Your task to perform on an android device: Open settings on Google Maps Image 0: 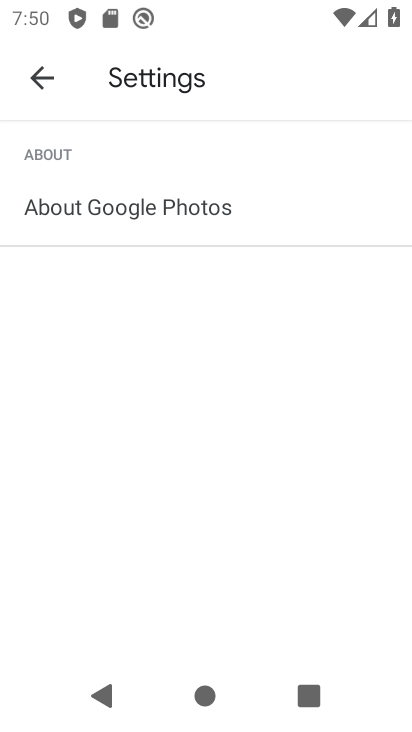
Step 0: press home button
Your task to perform on an android device: Open settings on Google Maps Image 1: 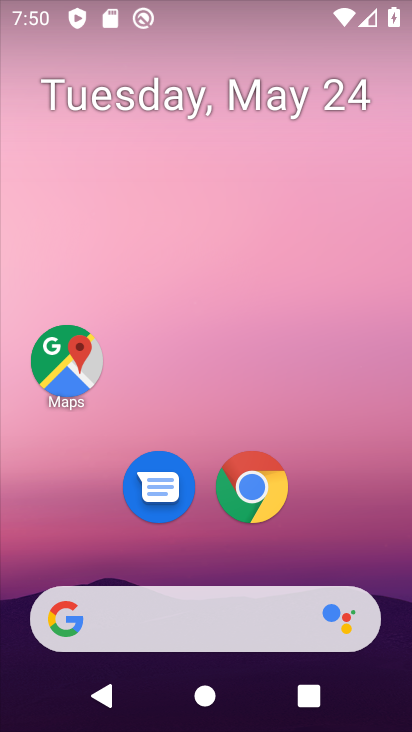
Step 1: click (49, 361)
Your task to perform on an android device: Open settings on Google Maps Image 2: 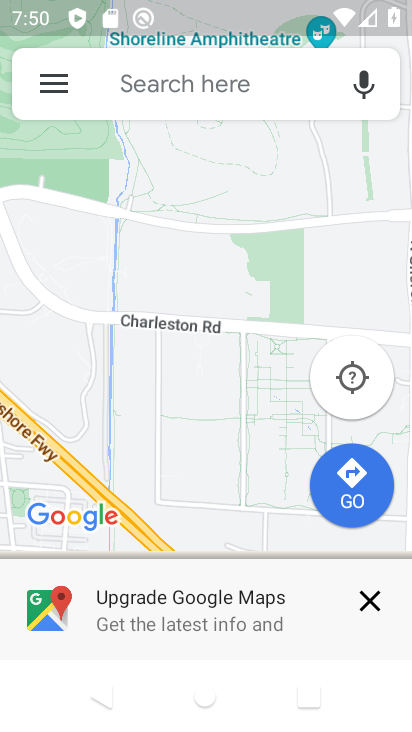
Step 2: click (51, 93)
Your task to perform on an android device: Open settings on Google Maps Image 3: 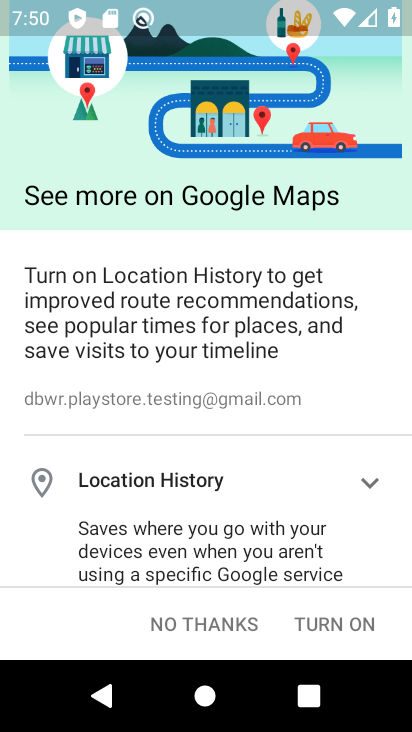
Step 3: click (218, 633)
Your task to perform on an android device: Open settings on Google Maps Image 4: 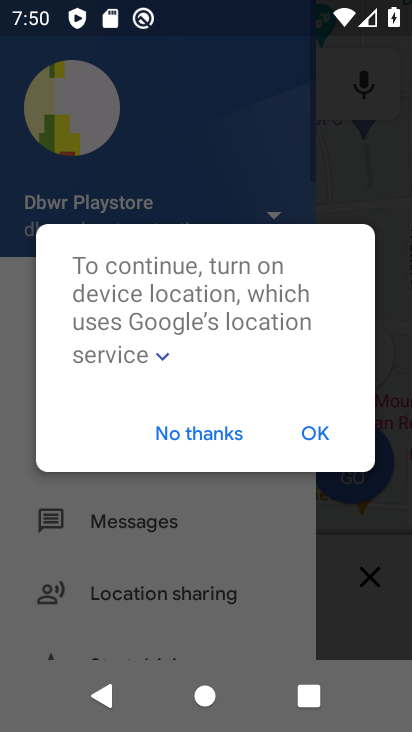
Step 4: click (183, 419)
Your task to perform on an android device: Open settings on Google Maps Image 5: 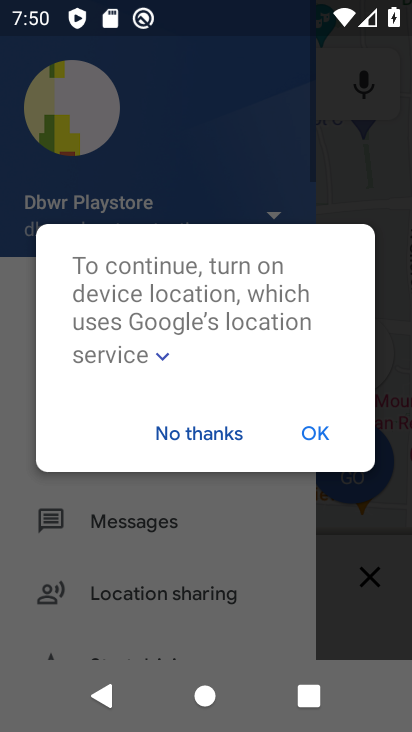
Step 5: click (183, 432)
Your task to perform on an android device: Open settings on Google Maps Image 6: 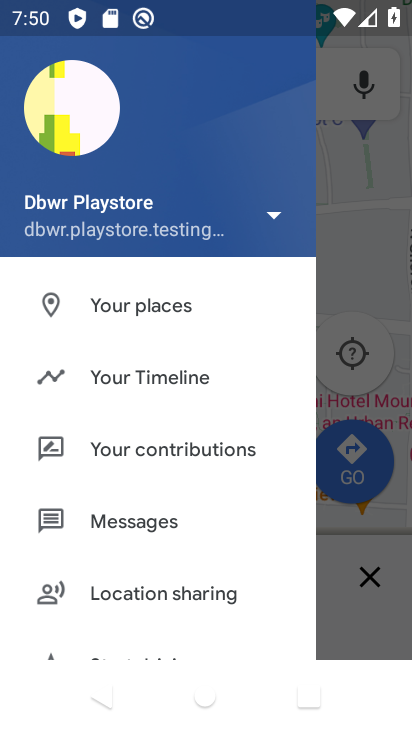
Step 6: drag from (7, 533) to (169, 117)
Your task to perform on an android device: Open settings on Google Maps Image 7: 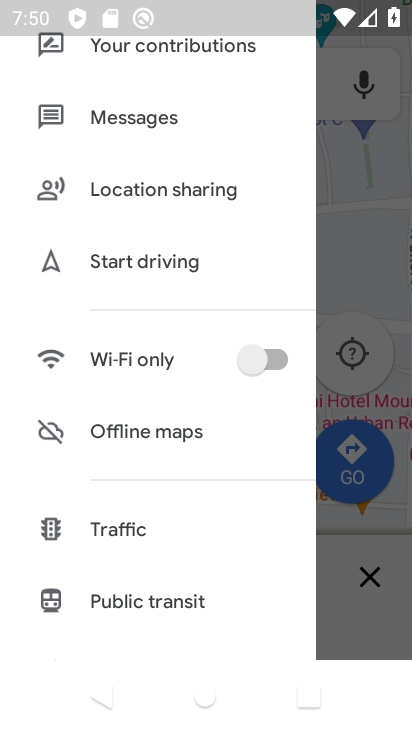
Step 7: drag from (88, 602) to (221, 154)
Your task to perform on an android device: Open settings on Google Maps Image 8: 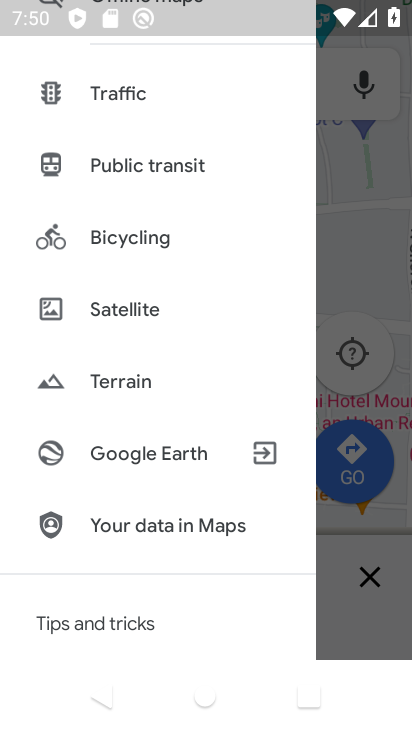
Step 8: drag from (85, 596) to (223, 111)
Your task to perform on an android device: Open settings on Google Maps Image 9: 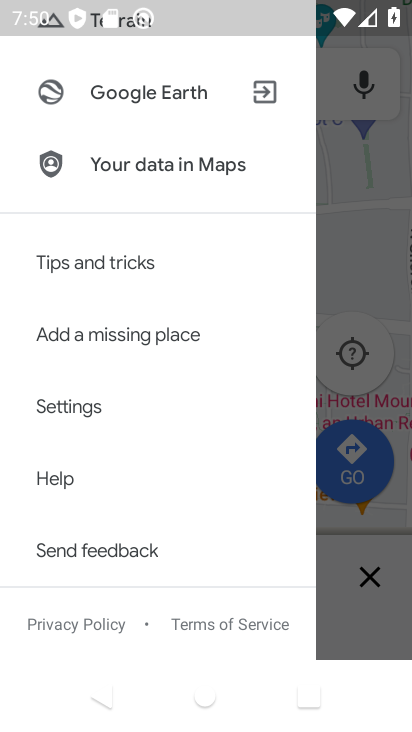
Step 9: click (119, 415)
Your task to perform on an android device: Open settings on Google Maps Image 10: 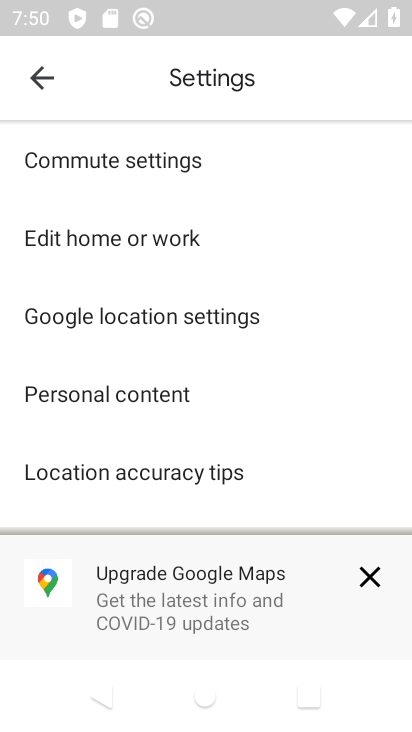
Step 10: click (370, 575)
Your task to perform on an android device: Open settings on Google Maps Image 11: 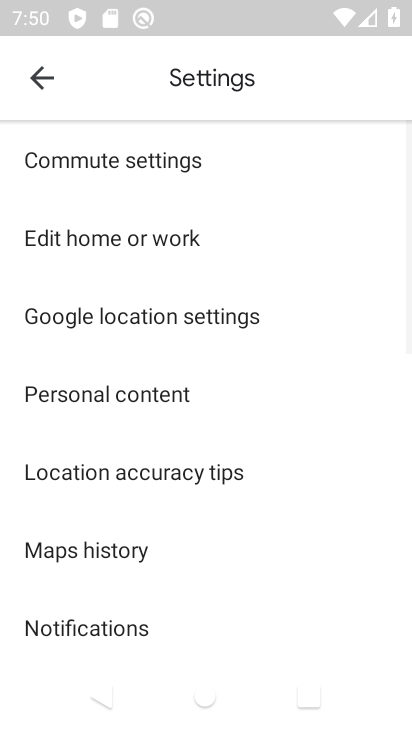
Step 11: task complete